Your task to perform on an android device: Open wifi settings Image 0: 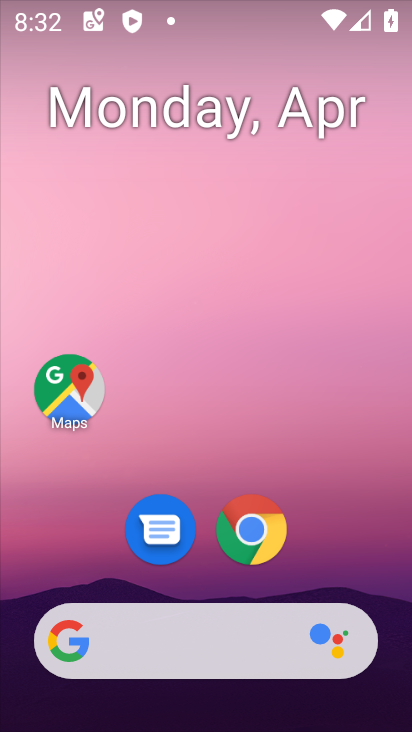
Step 0: drag from (370, 560) to (347, 97)
Your task to perform on an android device: Open wifi settings Image 1: 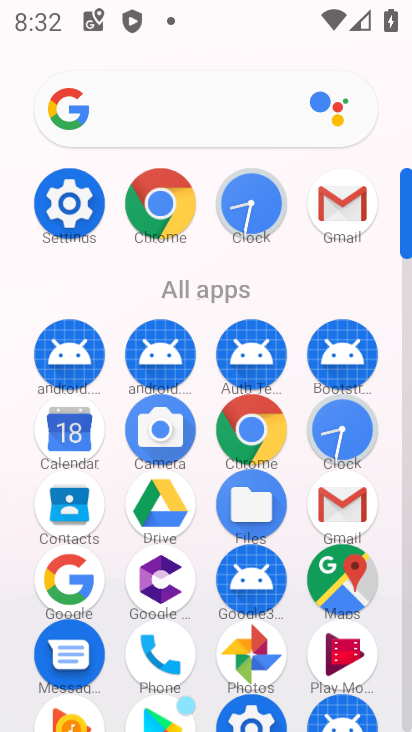
Step 1: click (61, 218)
Your task to perform on an android device: Open wifi settings Image 2: 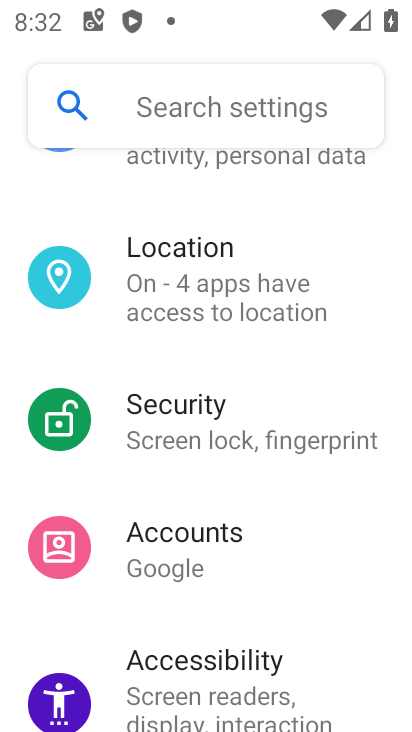
Step 2: drag from (304, 264) to (273, 608)
Your task to perform on an android device: Open wifi settings Image 3: 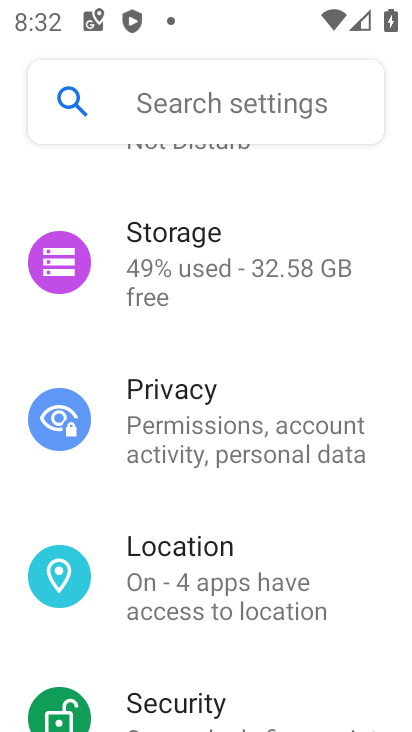
Step 3: drag from (318, 188) to (320, 597)
Your task to perform on an android device: Open wifi settings Image 4: 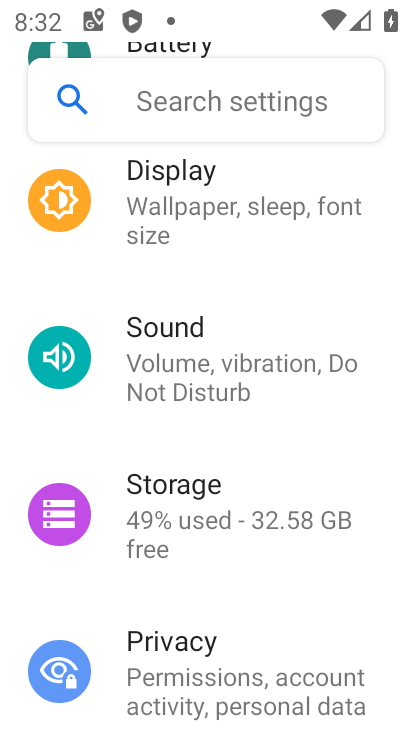
Step 4: drag from (309, 348) to (300, 649)
Your task to perform on an android device: Open wifi settings Image 5: 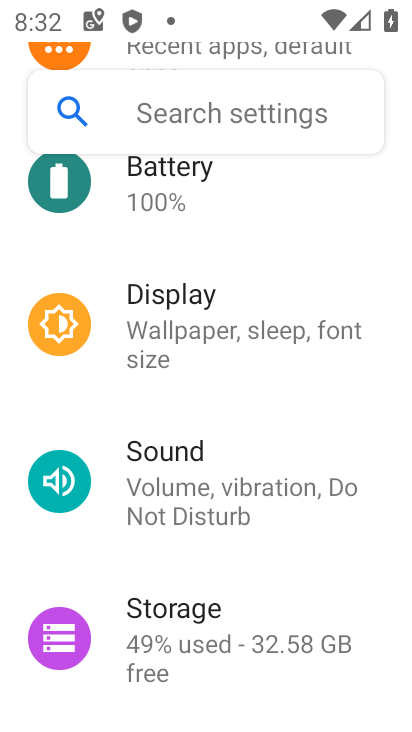
Step 5: drag from (336, 247) to (339, 674)
Your task to perform on an android device: Open wifi settings Image 6: 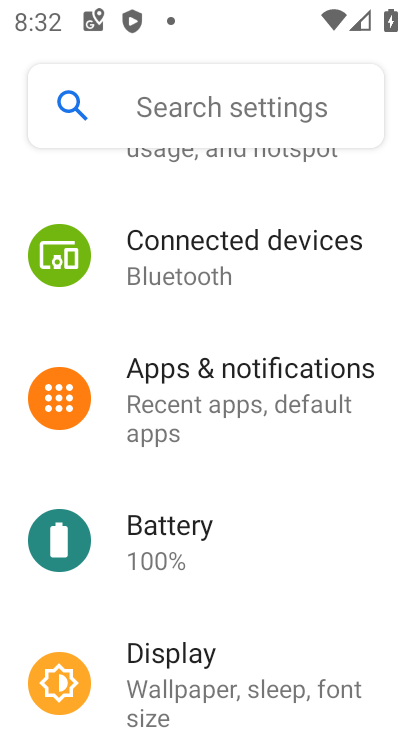
Step 6: drag from (326, 196) to (324, 641)
Your task to perform on an android device: Open wifi settings Image 7: 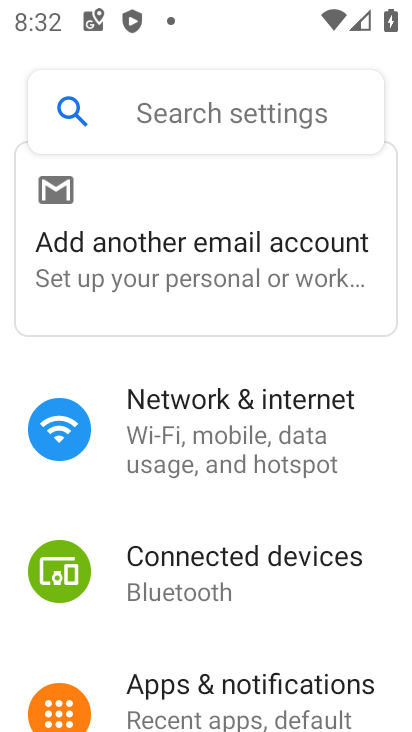
Step 7: click (227, 440)
Your task to perform on an android device: Open wifi settings Image 8: 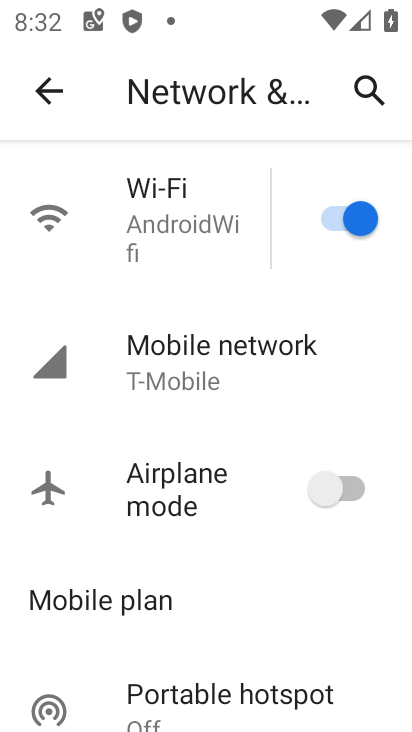
Step 8: click (186, 220)
Your task to perform on an android device: Open wifi settings Image 9: 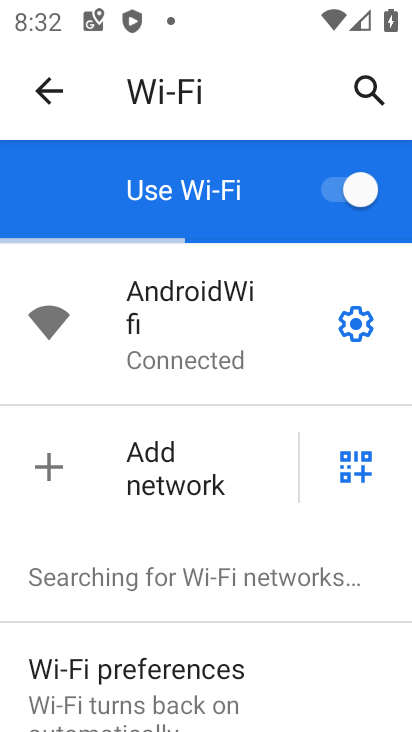
Step 9: click (349, 321)
Your task to perform on an android device: Open wifi settings Image 10: 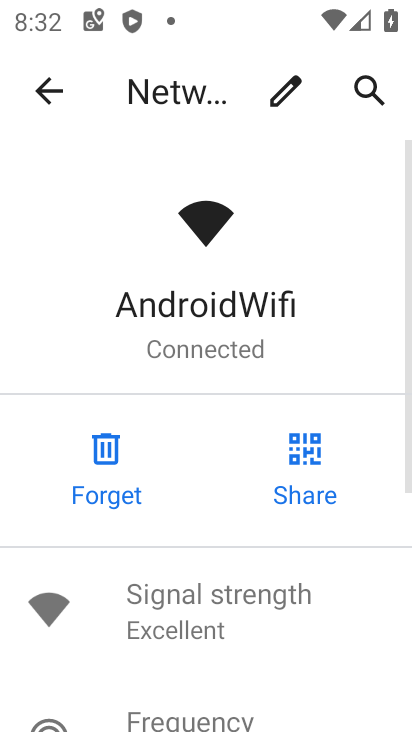
Step 10: task complete